Your task to perform on an android device: turn on sleep mode Image 0: 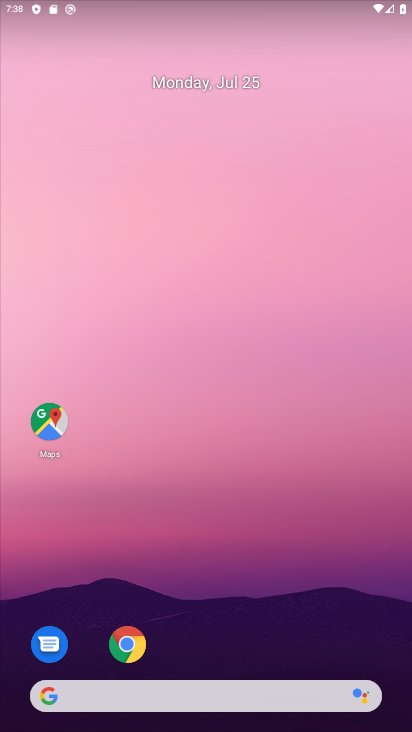
Step 0: drag from (164, 613) to (148, 121)
Your task to perform on an android device: turn on sleep mode Image 1: 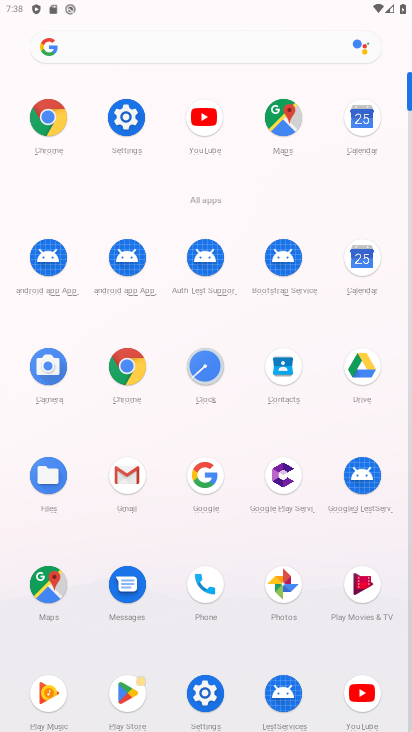
Step 1: click (123, 127)
Your task to perform on an android device: turn on sleep mode Image 2: 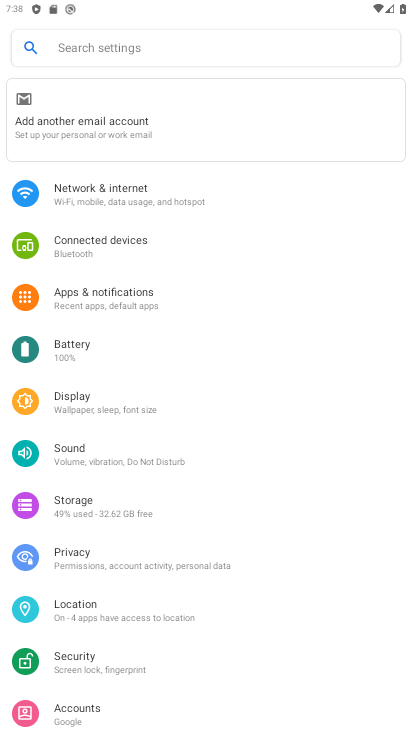
Step 2: task complete